Your task to perform on an android device: set default search engine in the chrome app Image 0: 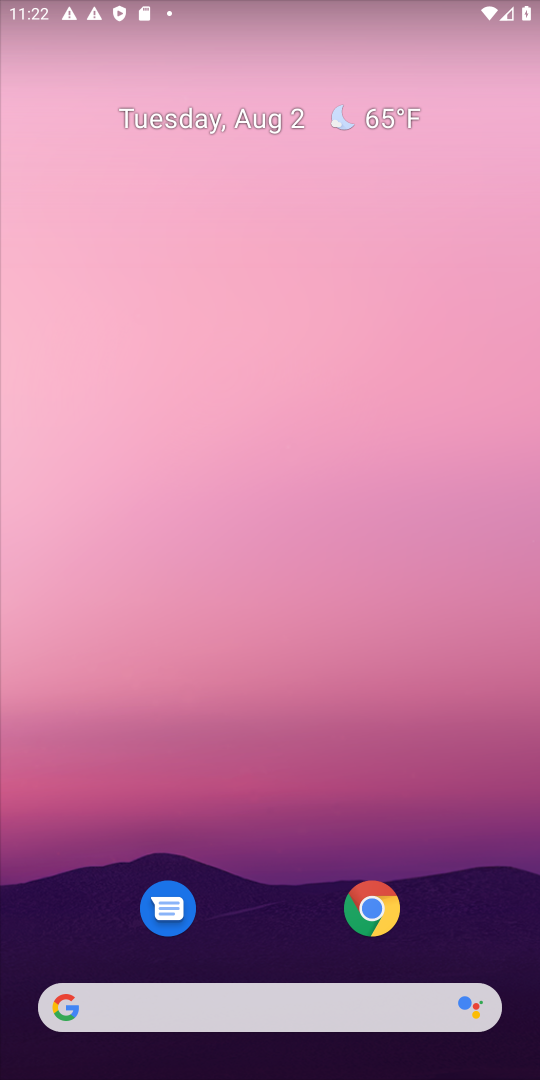
Step 0: click (369, 900)
Your task to perform on an android device: set default search engine in the chrome app Image 1: 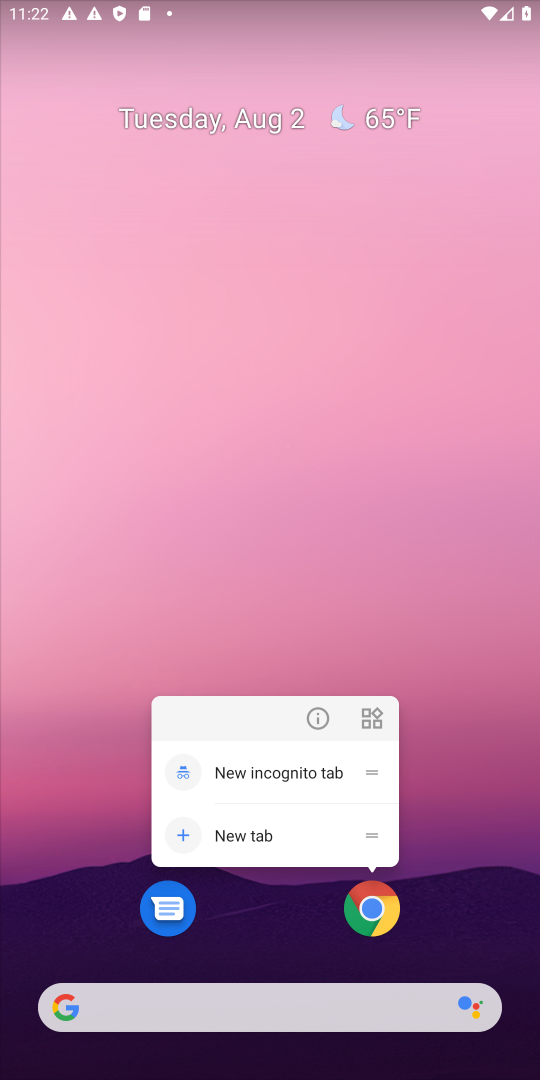
Step 1: click (369, 901)
Your task to perform on an android device: set default search engine in the chrome app Image 2: 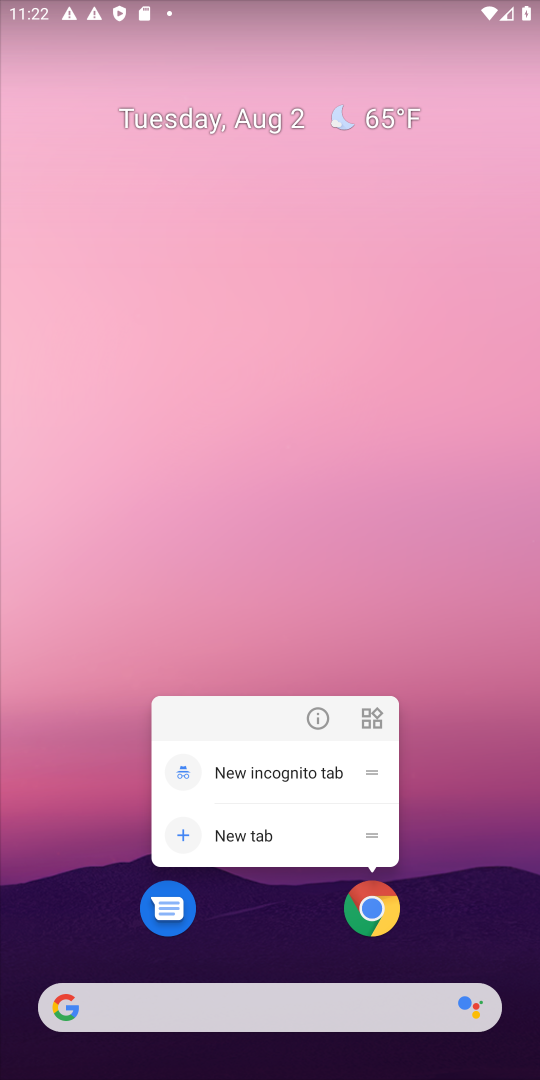
Step 2: click (366, 896)
Your task to perform on an android device: set default search engine in the chrome app Image 3: 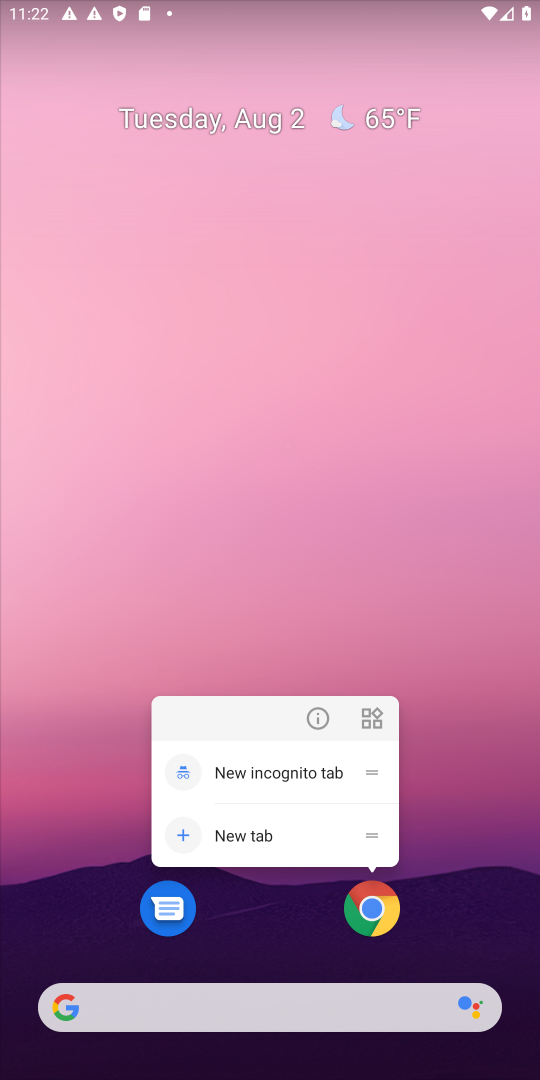
Step 3: click (368, 903)
Your task to perform on an android device: set default search engine in the chrome app Image 4: 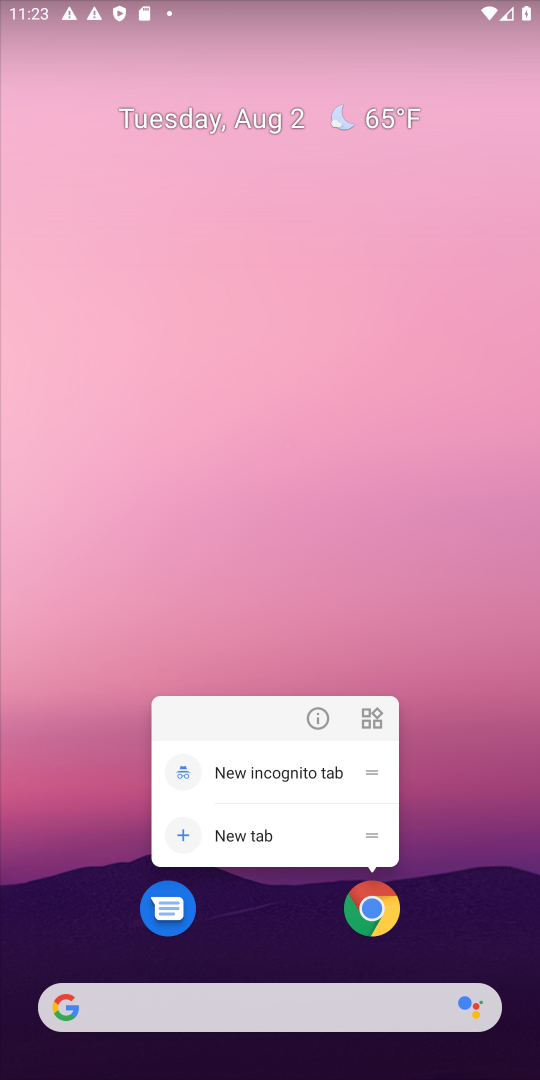
Step 4: click (378, 904)
Your task to perform on an android device: set default search engine in the chrome app Image 5: 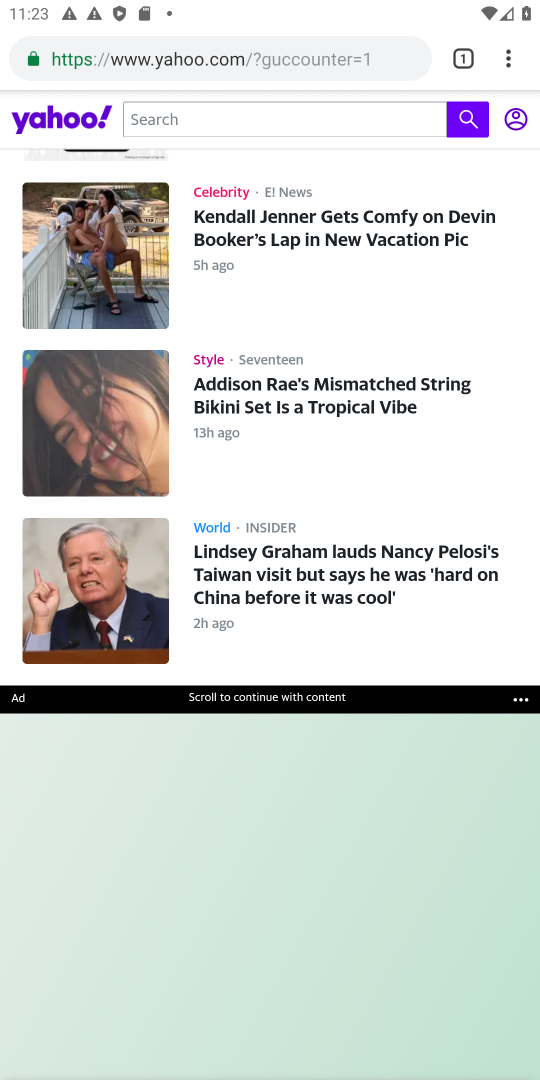
Step 5: click (504, 57)
Your task to perform on an android device: set default search engine in the chrome app Image 6: 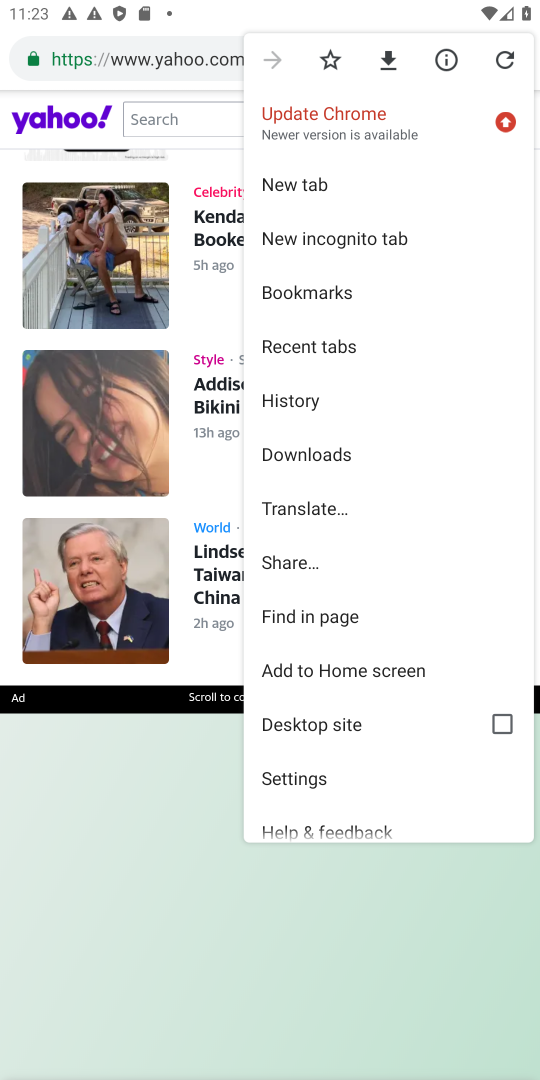
Step 6: click (326, 771)
Your task to perform on an android device: set default search engine in the chrome app Image 7: 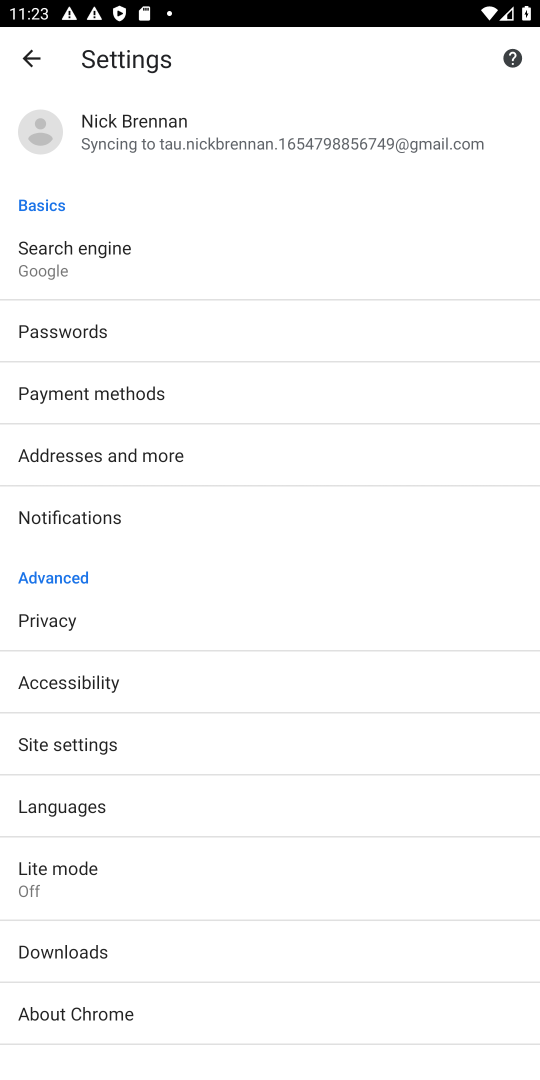
Step 7: click (105, 259)
Your task to perform on an android device: set default search engine in the chrome app Image 8: 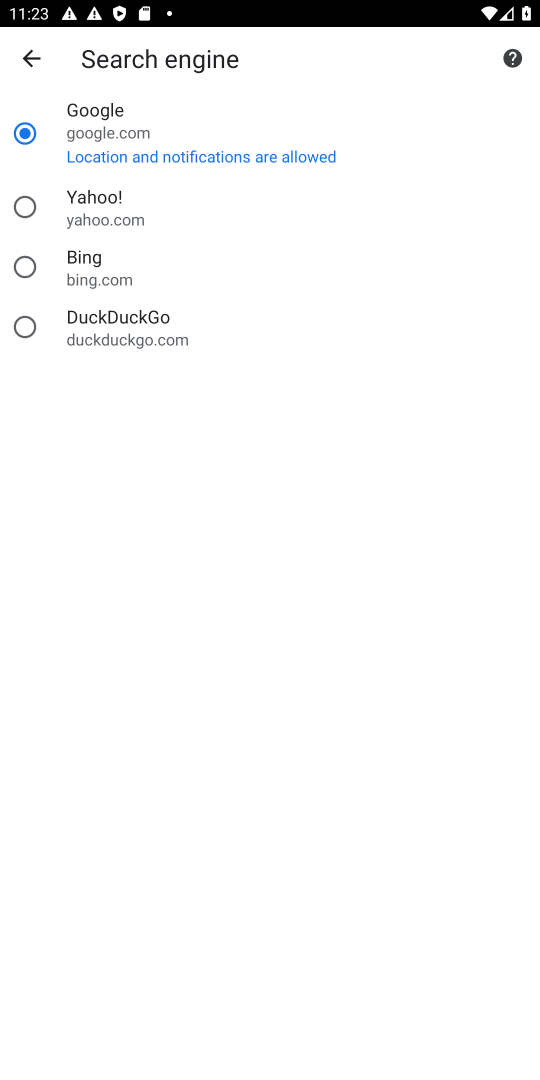
Step 8: click (28, 259)
Your task to perform on an android device: set default search engine in the chrome app Image 9: 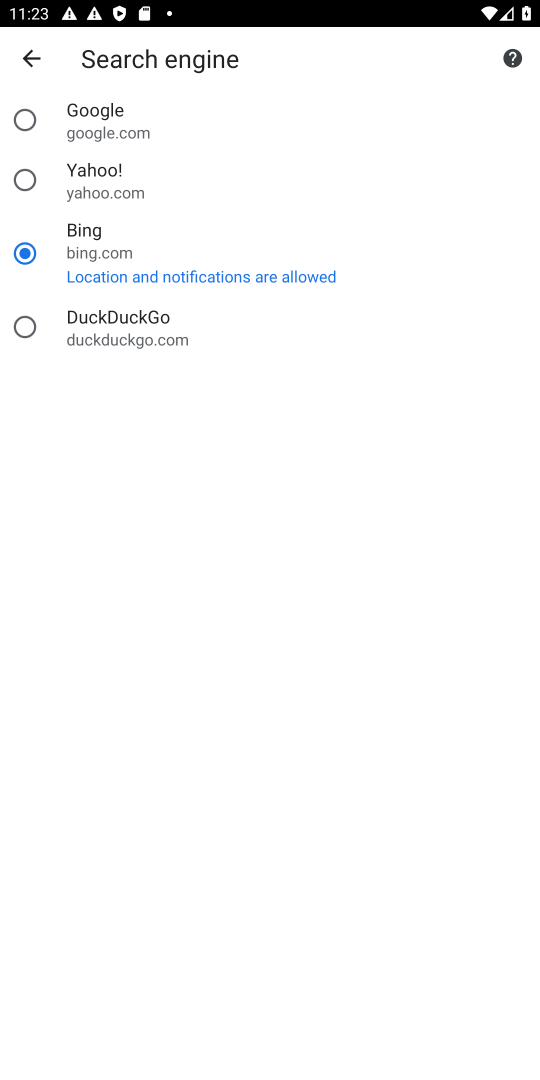
Step 9: task complete